Your task to perform on an android device: open the mobile data screen to see how much data has been used Image 0: 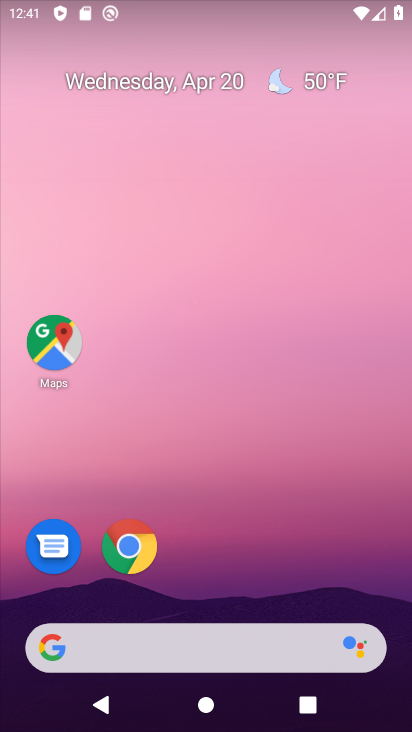
Step 0: drag from (291, 476) to (324, 24)
Your task to perform on an android device: open the mobile data screen to see how much data has been used Image 1: 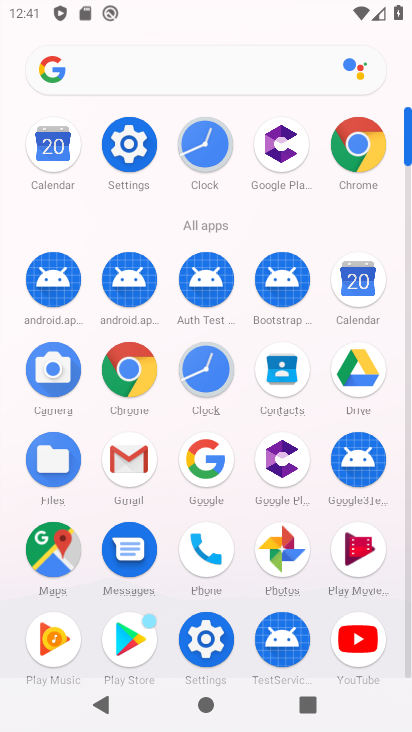
Step 1: click (143, 136)
Your task to perform on an android device: open the mobile data screen to see how much data has been used Image 2: 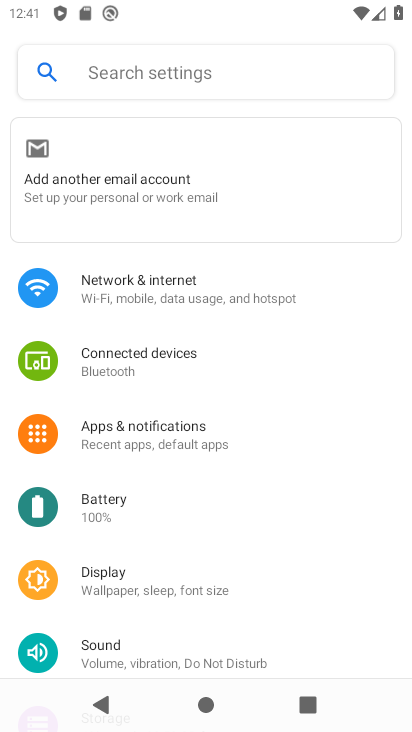
Step 2: click (195, 289)
Your task to perform on an android device: open the mobile data screen to see how much data has been used Image 3: 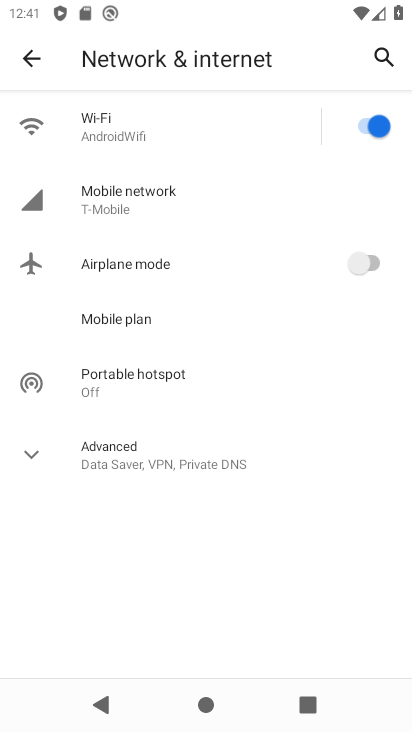
Step 3: click (158, 188)
Your task to perform on an android device: open the mobile data screen to see how much data has been used Image 4: 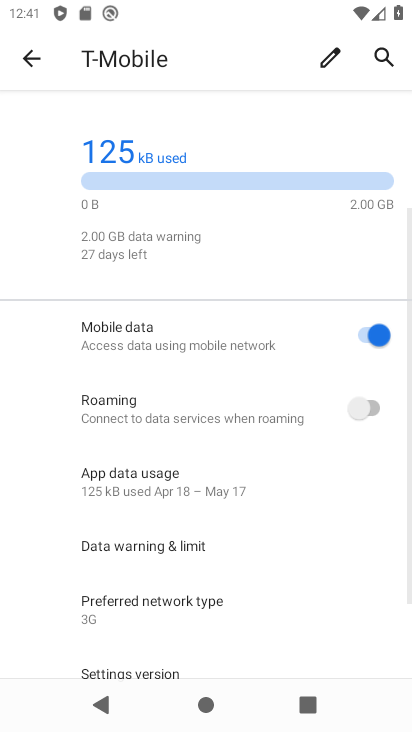
Step 4: click (159, 466)
Your task to perform on an android device: open the mobile data screen to see how much data has been used Image 5: 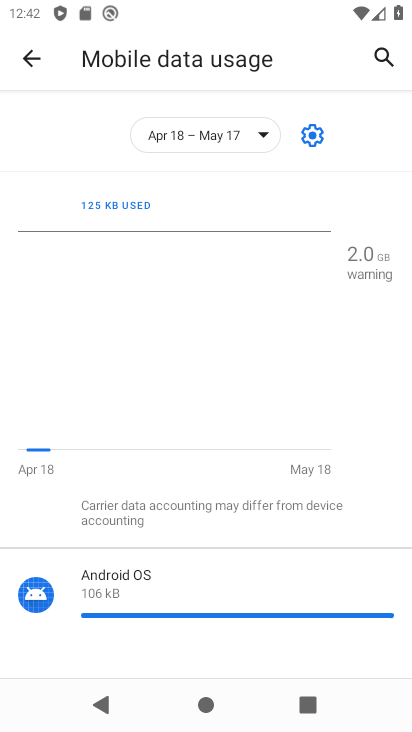
Step 5: task complete